Your task to perform on an android device: uninstall "Facebook Messenger" Image 0: 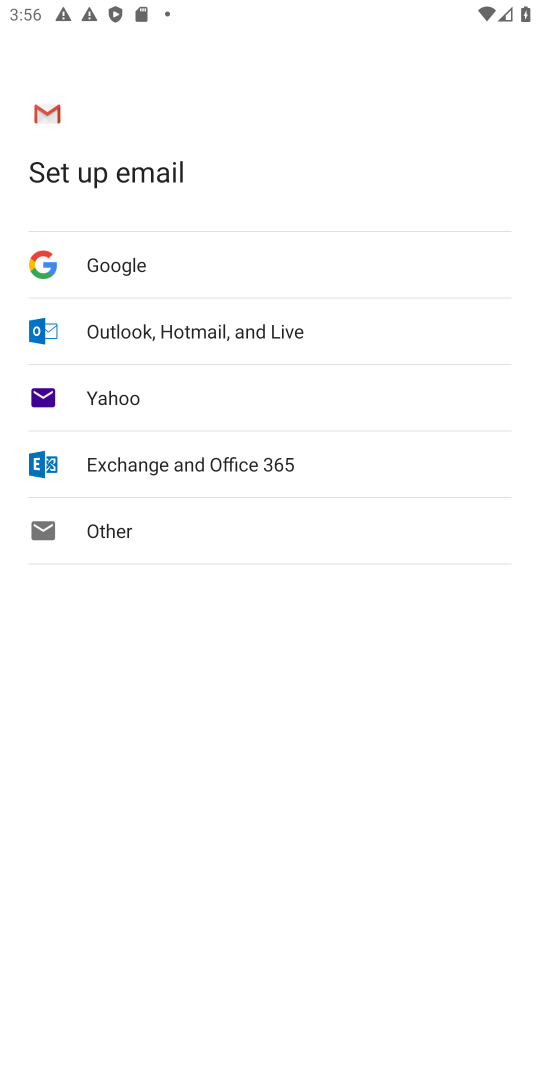
Step 0: press home button
Your task to perform on an android device: uninstall "Facebook Messenger" Image 1: 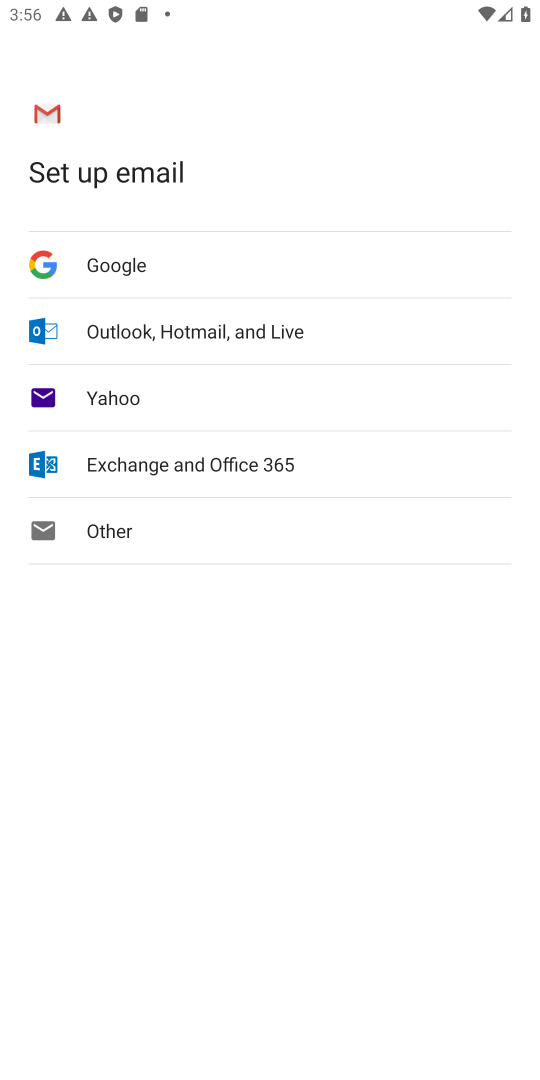
Step 1: press home button
Your task to perform on an android device: uninstall "Facebook Messenger" Image 2: 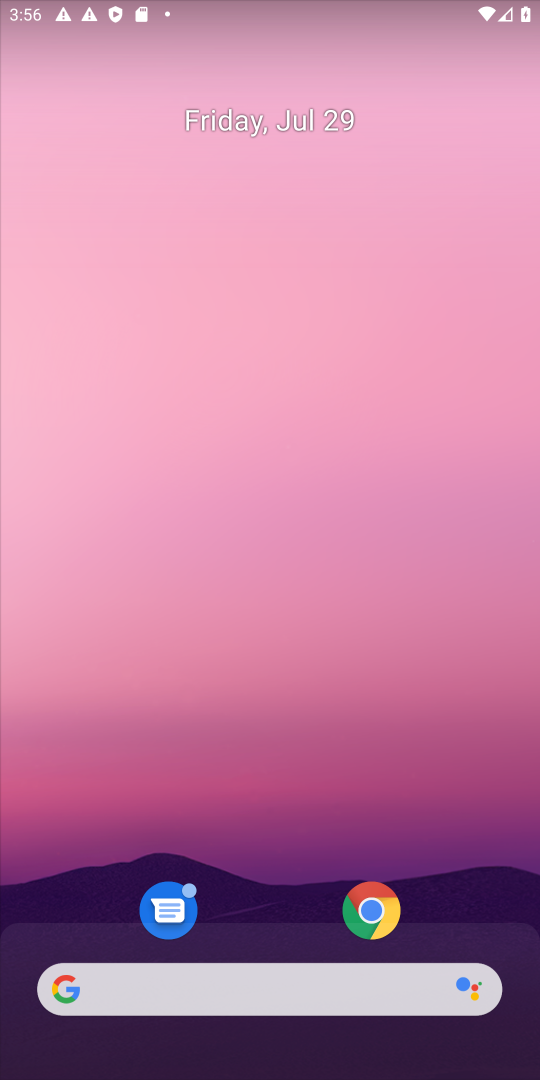
Step 2: drag from (252, 815) to (271, 98)
Your task to perform on an android device: uninstall "Facebook Messenger" Image 3: 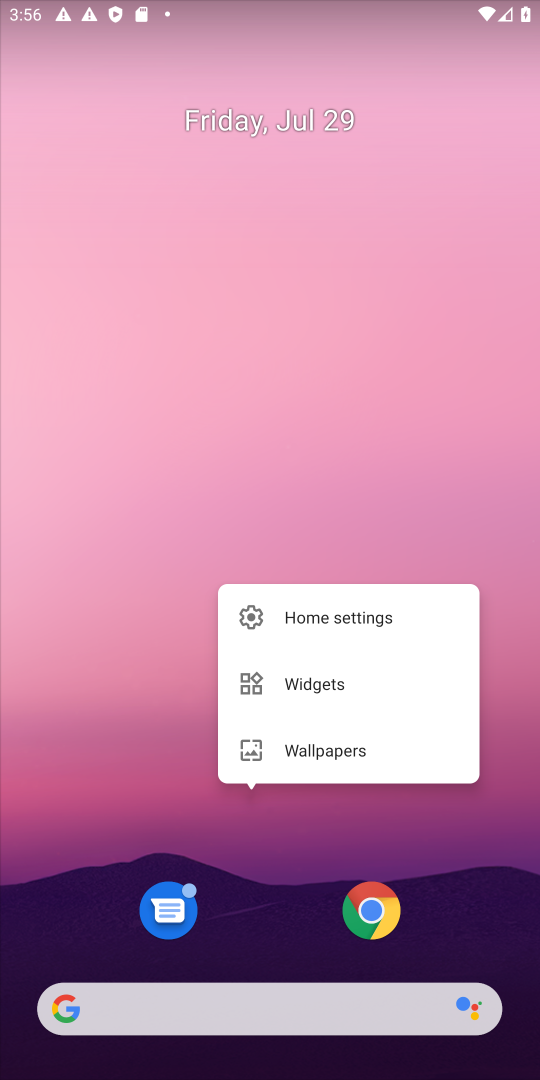
Step 3: click (424, 435)
Your task to perform on an android device: uninstall "Facebook Messenger" Image 4: 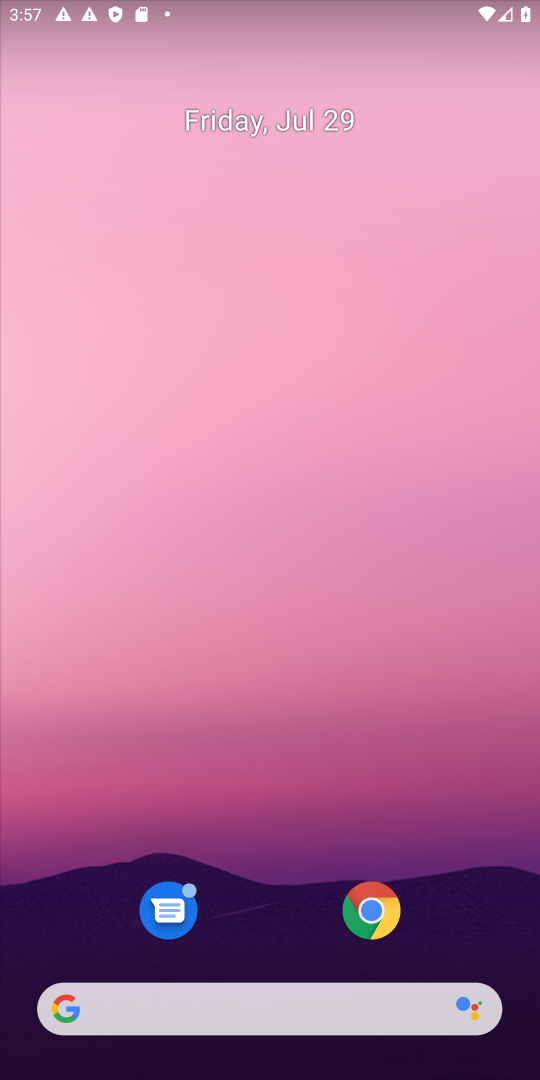
Step 4: drag from (291, 904) to (292, 51)
Your task to perform on an android device: uninstall "Facebook Messenger" Image 5: 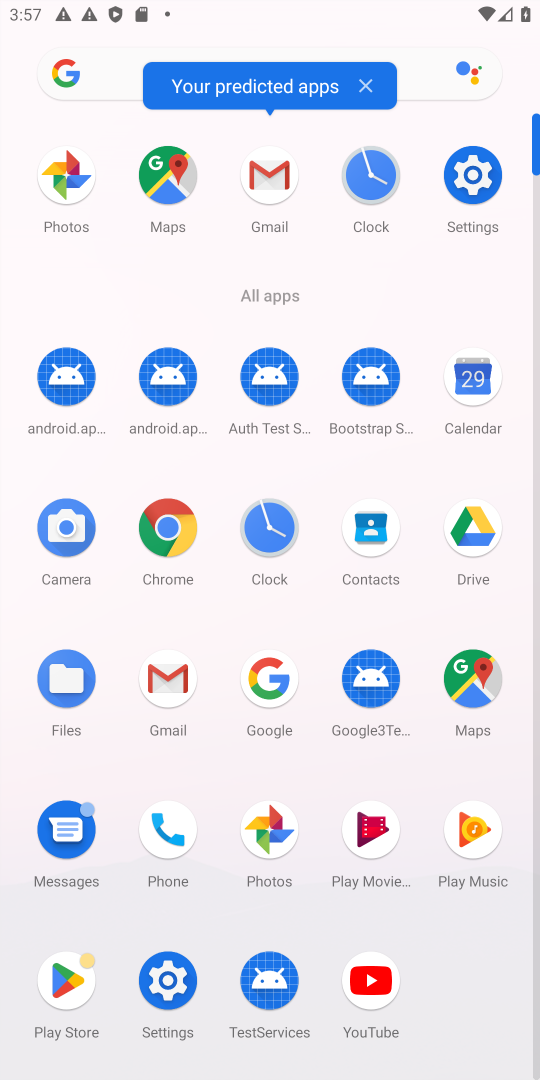
Step 5: drag from (207, 619) to (255, 198)
Your task to perform on an android device: uninstall "Facebook Messenger" Image 6: 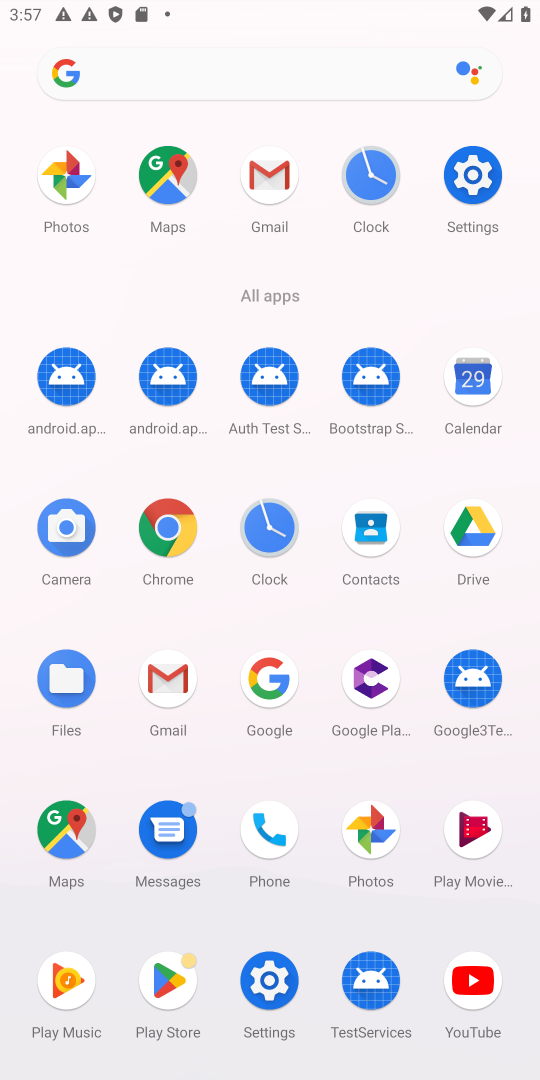
Step 6: drag from (328, 764) to (337, 229)
Your task to perform on an android device: uninstall "Facebook Messenger" Image 7: 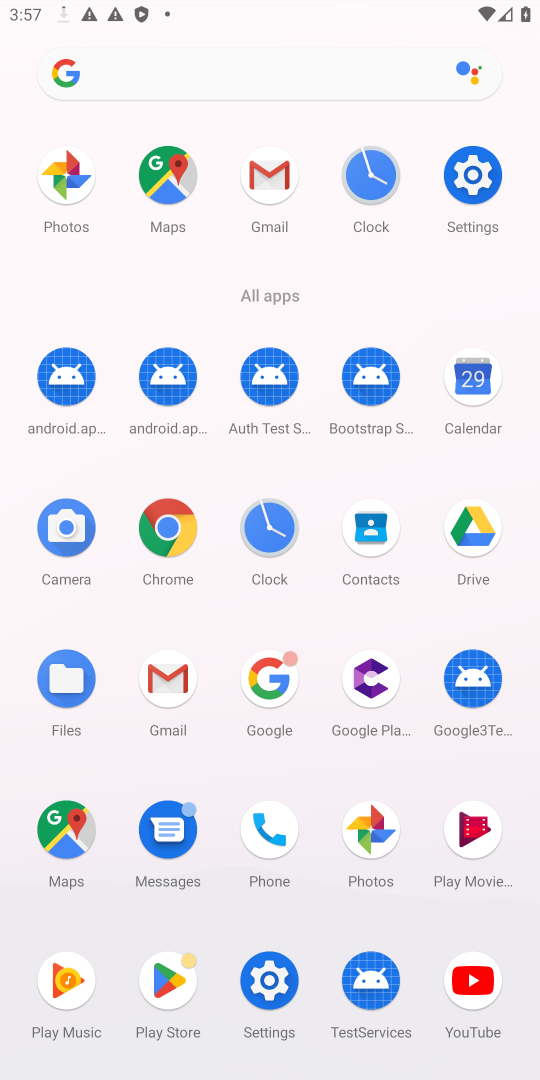
Step 7: press back button
Your task to perform on an android device: uninstall "Facebook Messenger" Image 8: 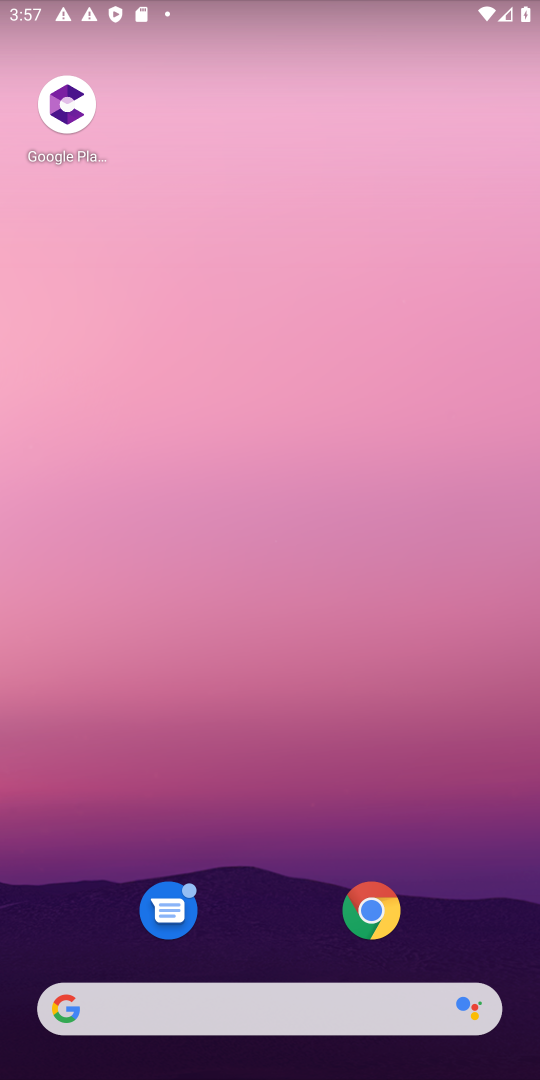
Step 8: drag from (377, 815) to (436, 133)
Your task to perform on an android device: uninstall "Facebook Messenger" Image 9: 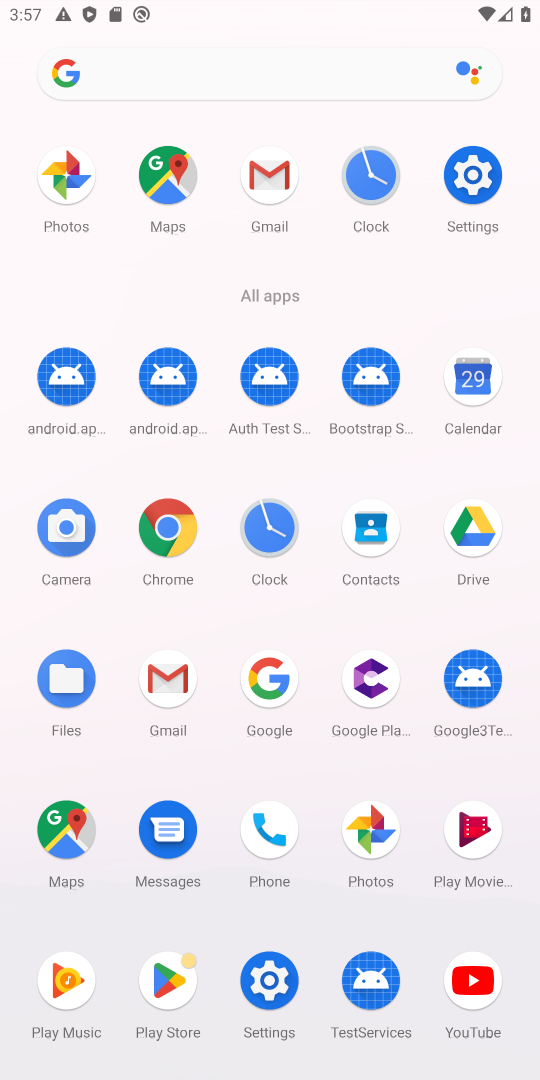
Step 9: click (176, 956)
Your task to perform on an android device: uninstall "Facebook Messenger" Image 10: 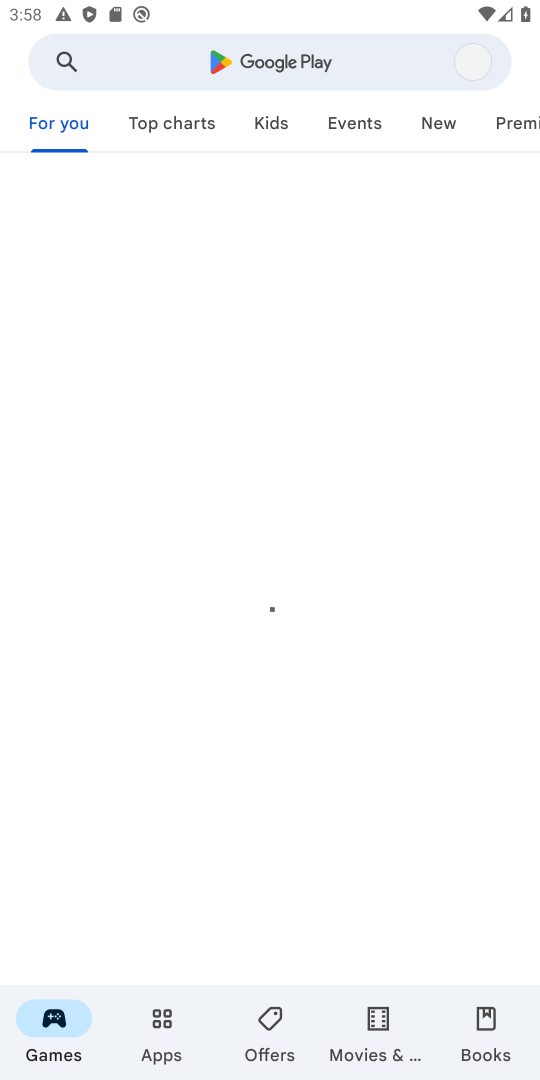
Step 10: click (307, 65)
Your task to perform on an android device: uninstall "Facebook Messenger" Image 11: 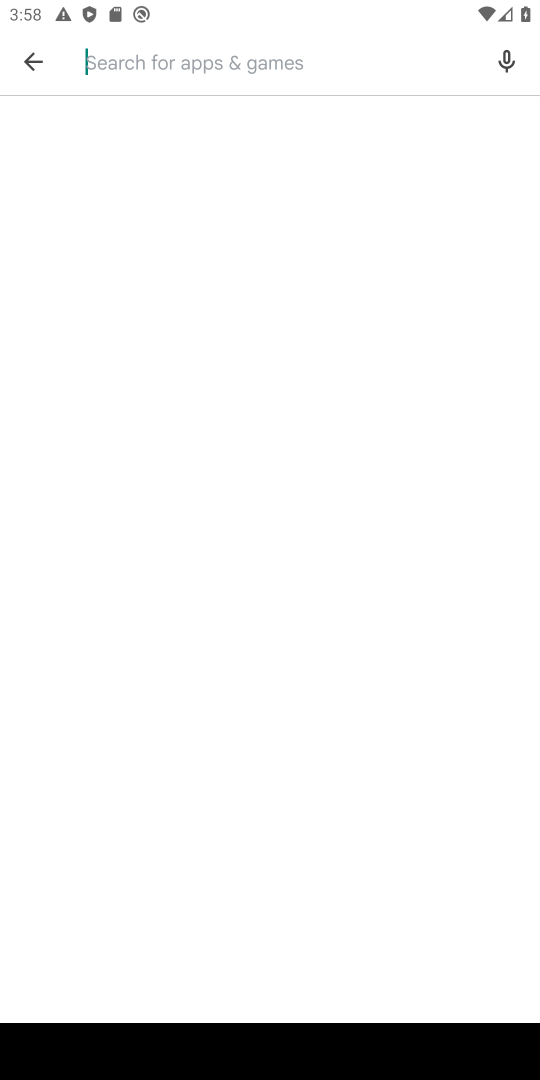
Step 11: type "Facebook messnger"
Your task to perform on an android device: uninstall "Facebook Messenger" Image 12: 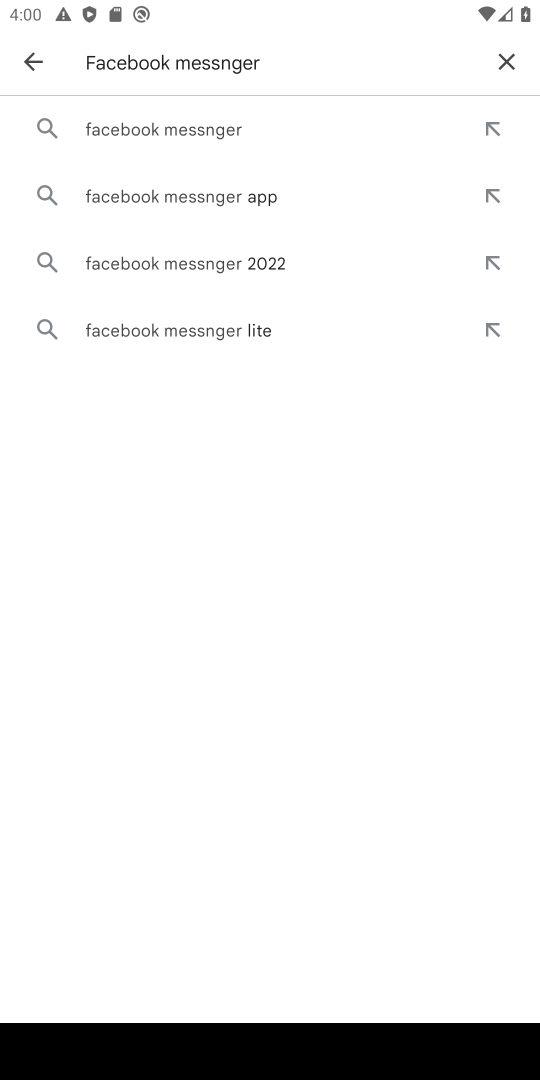
Step 12: click (192, 129)
Your task to perform on an android device: uninstall "Facebook Messenger" Image 13: 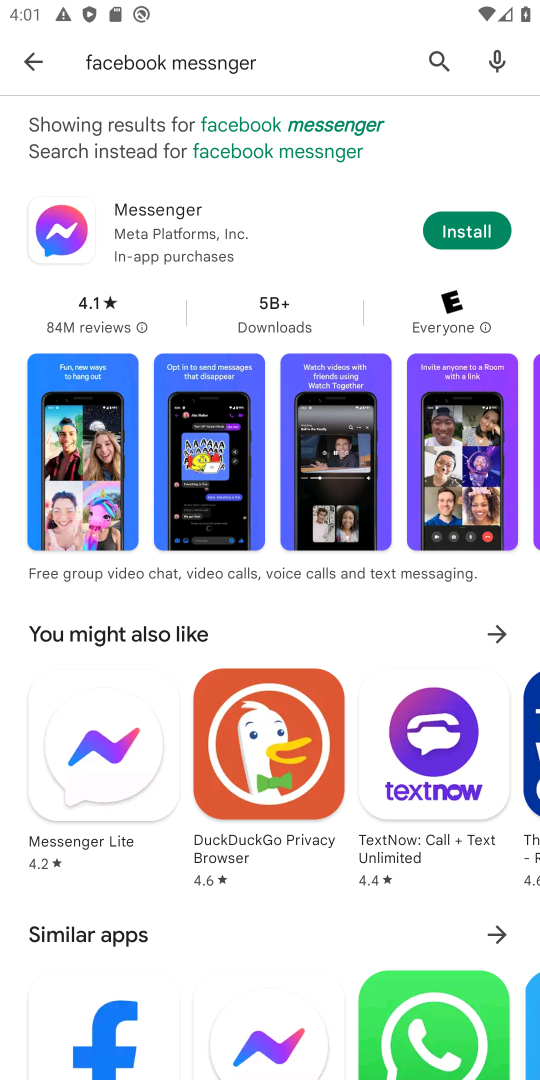
Step 13: task complete